Your task to perform on an android device: Go to Android settings Image 0: 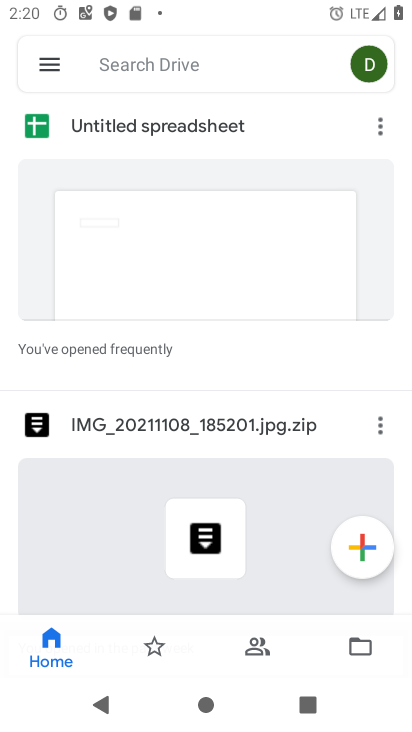
Step 0: press home button
Your task to perform on an android device: Go to Android settings Image 1: 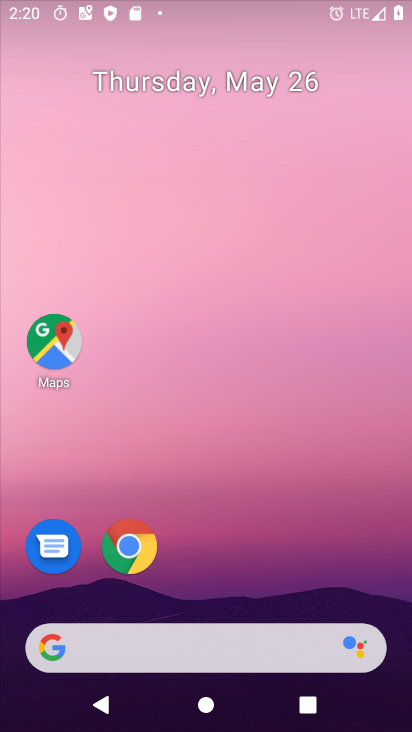
Step 1: drag from (228, 574) to (305, 71)
Your task to perform on an android device: Go to Android settings Image 2: 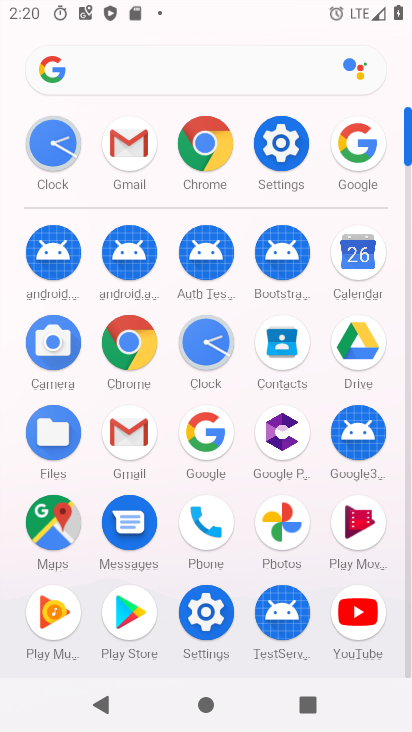
Step 2: click (285, 138)
Your task to perform on an android device: Go to Android settings Image 3: 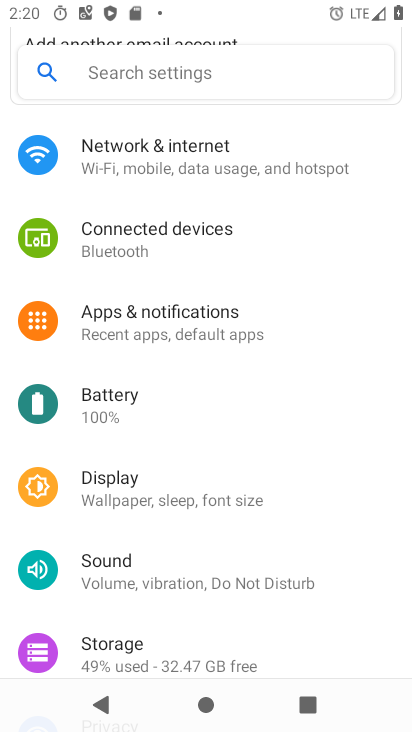
Step 3: task complete